Your task to perform on an android device: turn off wifi Image 0: 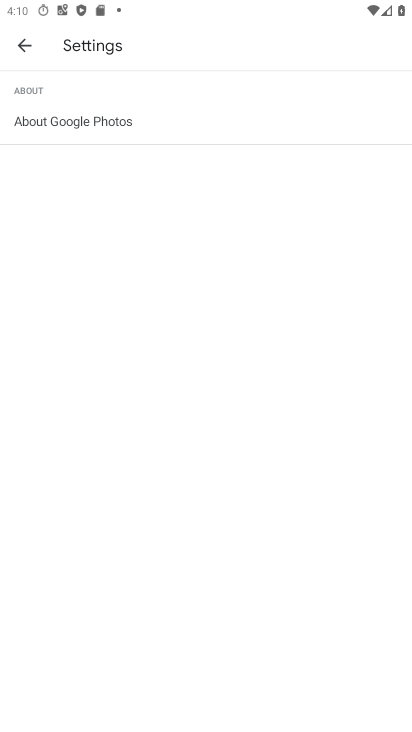
Step 0: press home button
Your task to perform on an android device: turn off wifi Image 1: 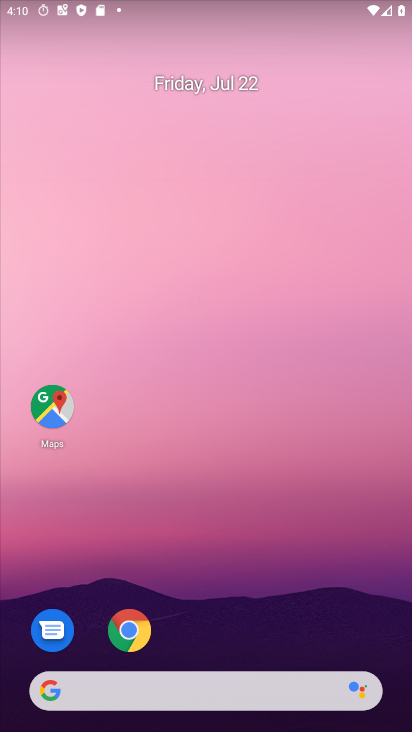
Step 1: drag from (205, 639) to (149, 28)
Your task to perform on an android device: turn off wifi Image 2: 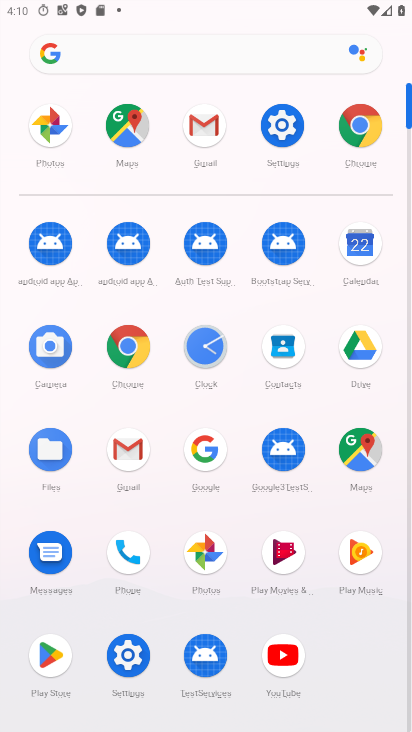
Step 2: click (282, 134)
Your task to perform on an android device: turn off wifi Image 3: 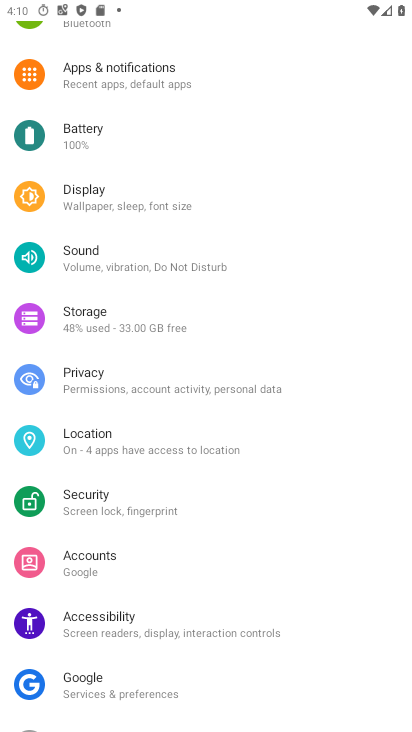
Step 3: drag from (145, 144) to (244, 704)
Your task to perform on an android device: turn off wifi Image 4: 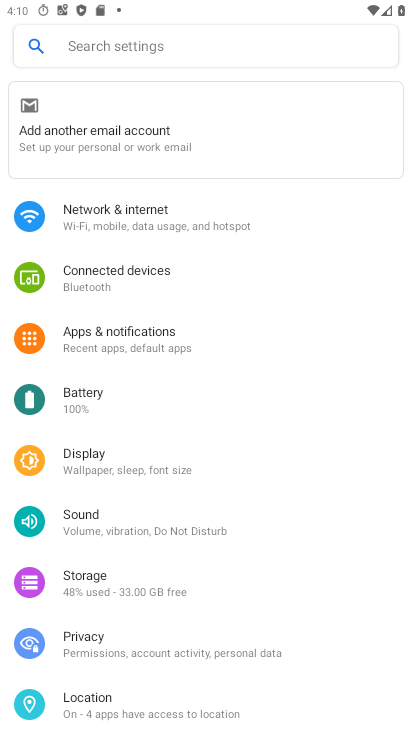
Step 4: click (194, 219)
Your task to perform on an android device: turn off wifi Image 5: 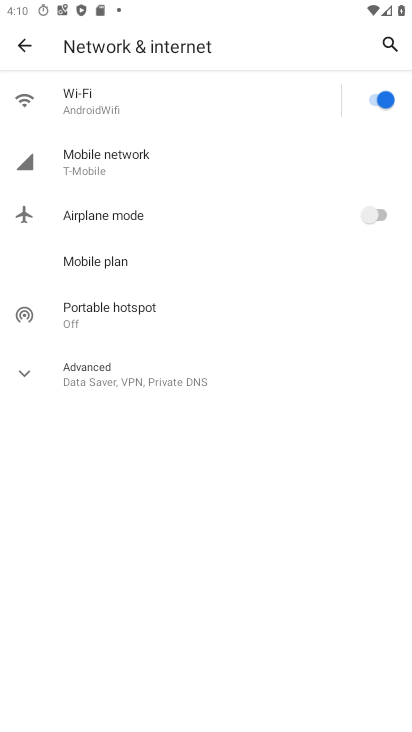
Step 5: click (373, 94)
Your task to perform on an android device: turn off wifi Image 6: 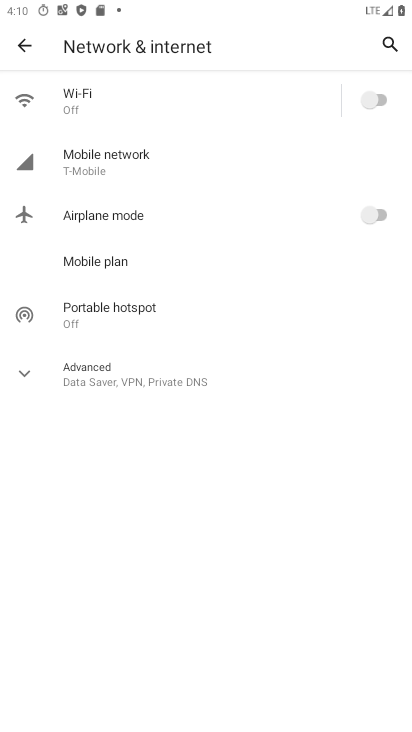
Step 6: task complete